Your task to perform on an android device: Open internet settings Image 0: 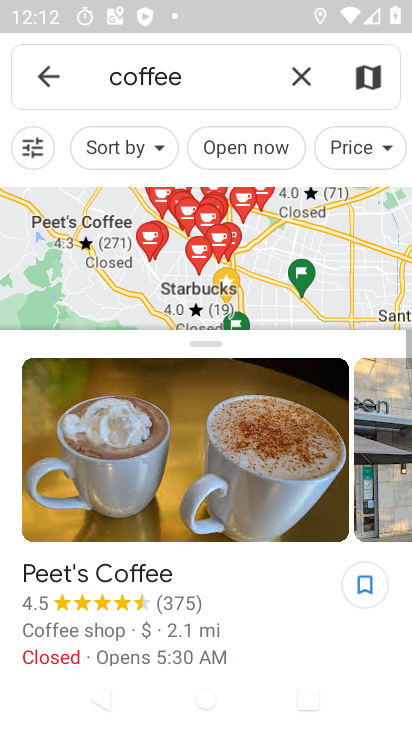
Step 0: press home button
Your task to perform on an android device: Open internet settings Image 1: 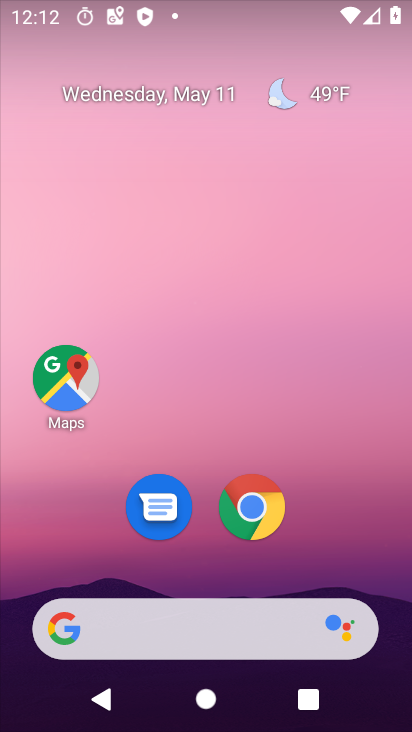
Step 1: drag from (228, 545) to (213, 75)
Your task to perform on an android device: Open internet settings Image 2: 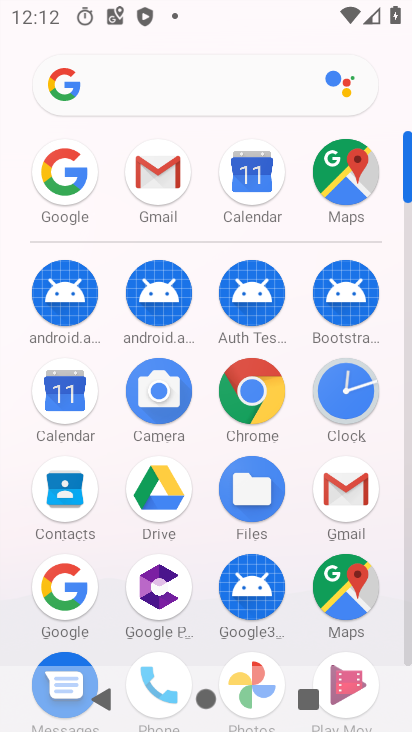
Step 2: drag from (204, 563) to (201, 17)
Your task to perform on an android device: Open internet settings Image 3: 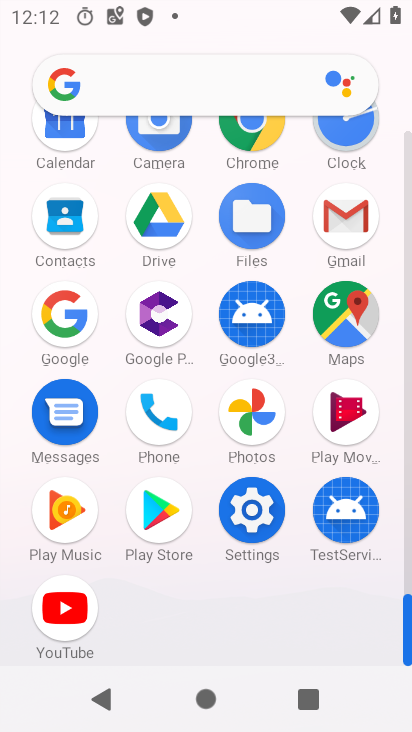
Step 3: click (255, 517)
Your task to perform on an android device: Open internet settings Image 4: 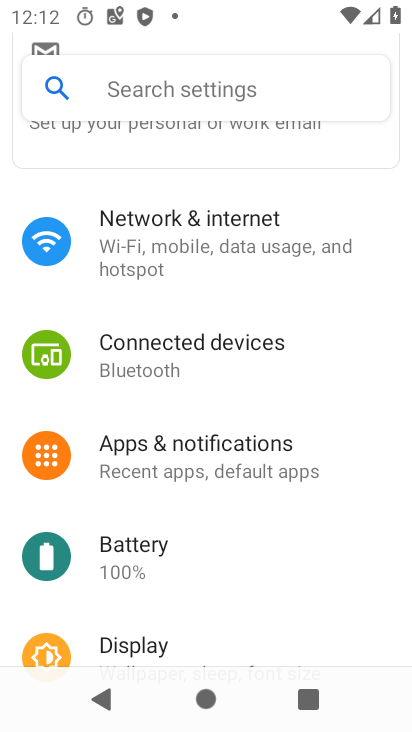
Step 4: click (177, 255)
Your task to perform on an android device: Open internet settings Image 5: 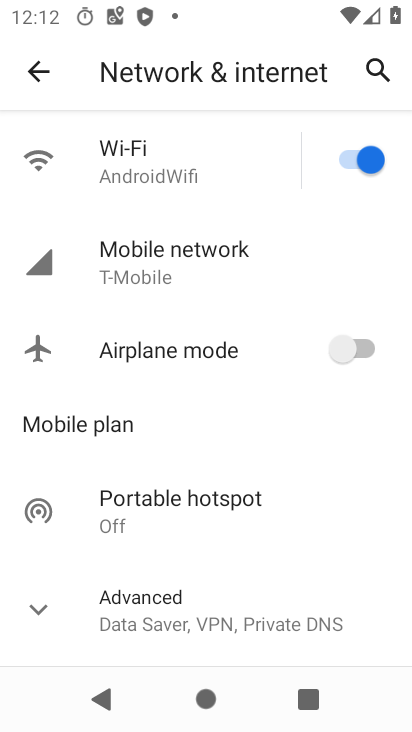
Step 5: click (170, 161)
Your task to perform on an android device: Open internet settings Image 6: 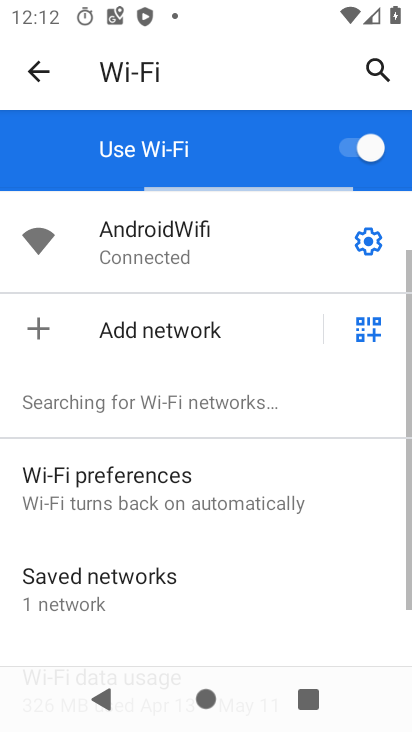
Step 6: click (361, 236)
Your task to perform on an android device: Open internet settings Image 7: 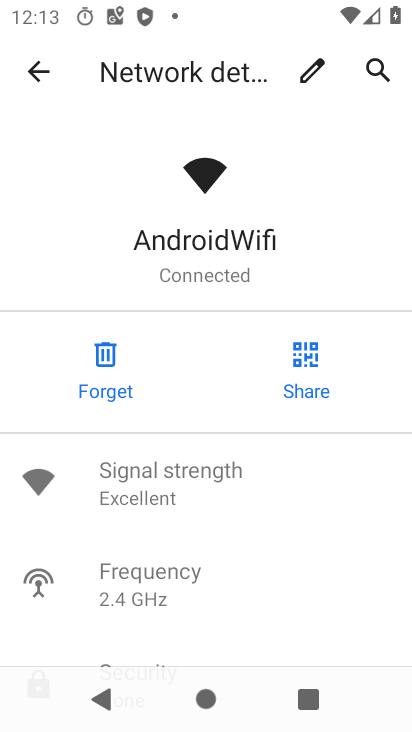
Step 7: task complete